Your task to perform on an android device: star an email in the gmail app Image 0: 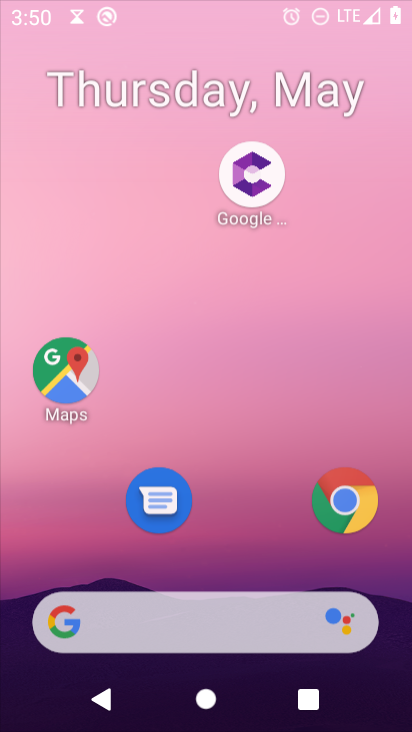
Step 0: press home button
Your task to perform on an android device: star an email in the gmail app Image 1: 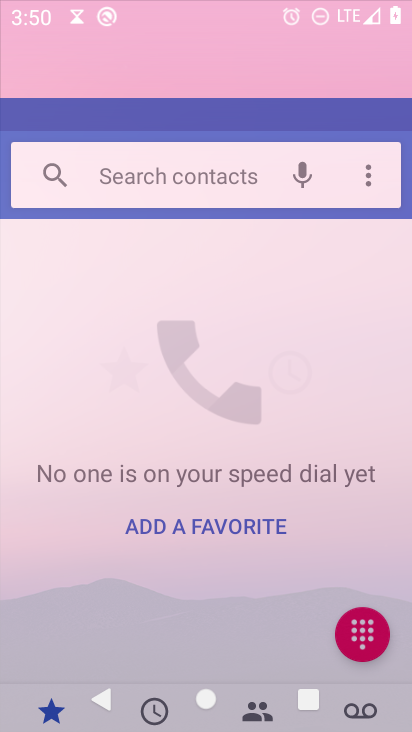
Step 1: drag from (271, 568) to (212, 239)
Your task to perform on an android device: star an email in the gmail app Image 2: 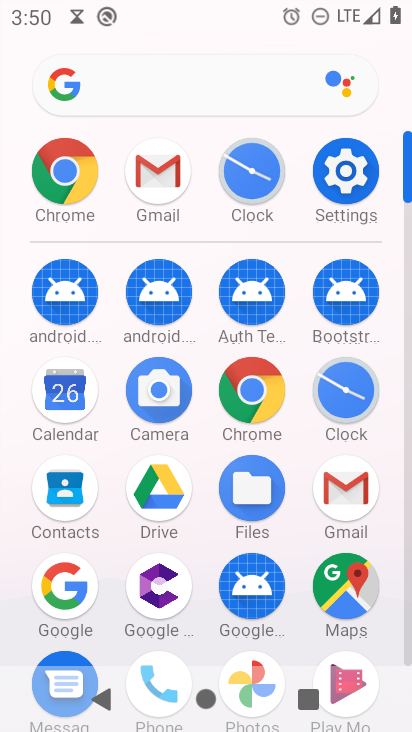
Step 2: press home button
Your task to perform on an android device: star an email in the gmail app Image 3: 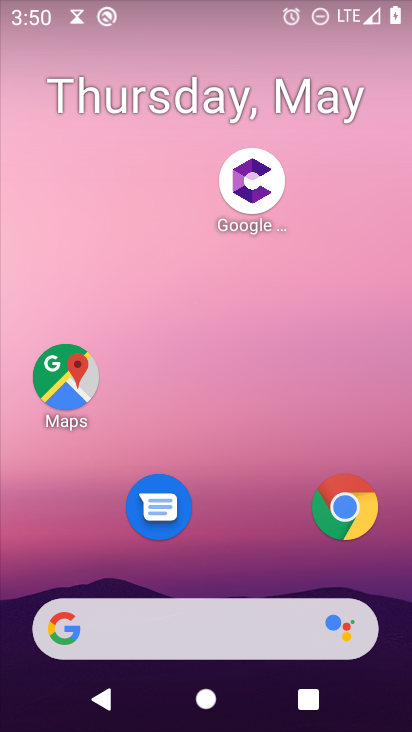
Step 3: drag from (252, 578) to (193, 185)
Your task to perform on an android device: star an email in the gmail app Image 4: 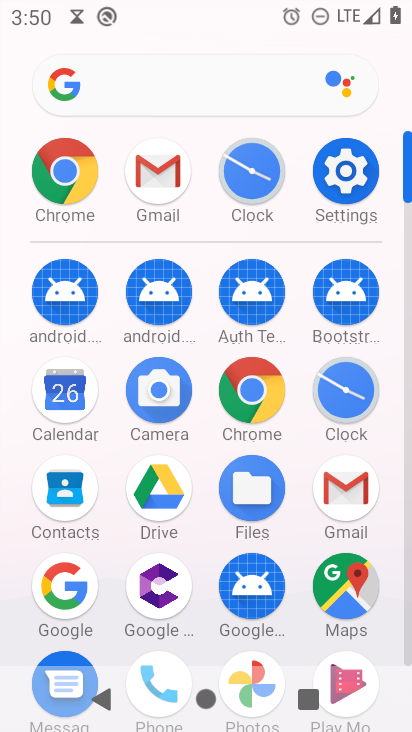
Step 4: click (335, 493)
Your task to perform on an android device: star an email in the gmail app Image 5: 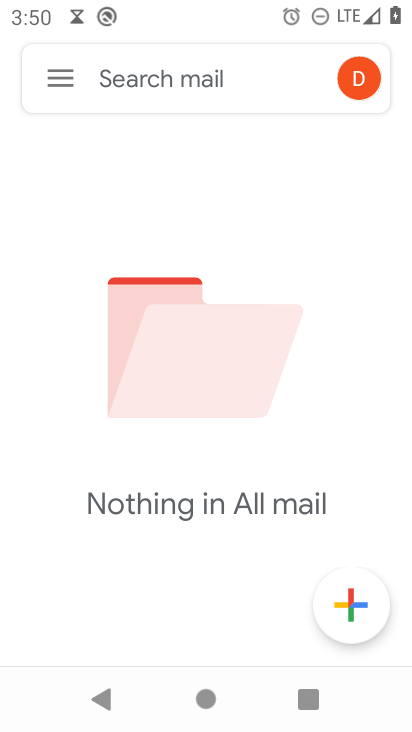
Step 5: click (58, 83)
Your task to perform on an android device: star an email in the gmail app Image 6: 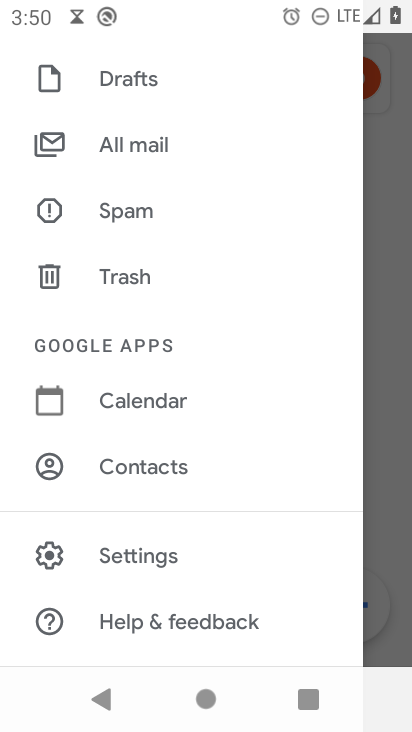
Step 6: click (158, 146)
Your task to perform on an android device: star an email in the gmail app Image 7: 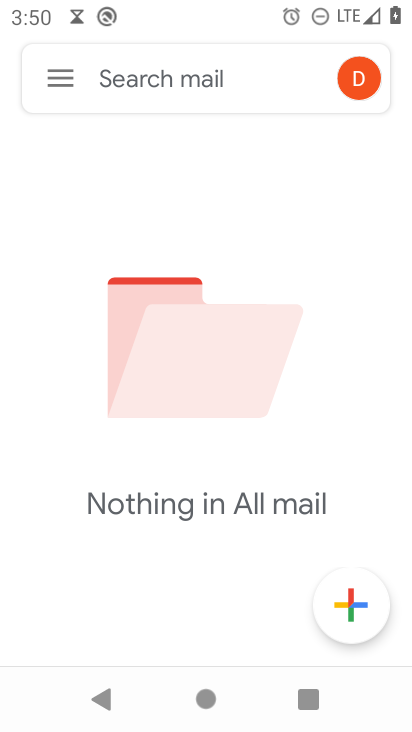
Step 7: task complete